Your task to perform on an android device: Open settings on Google Maps Image 0: 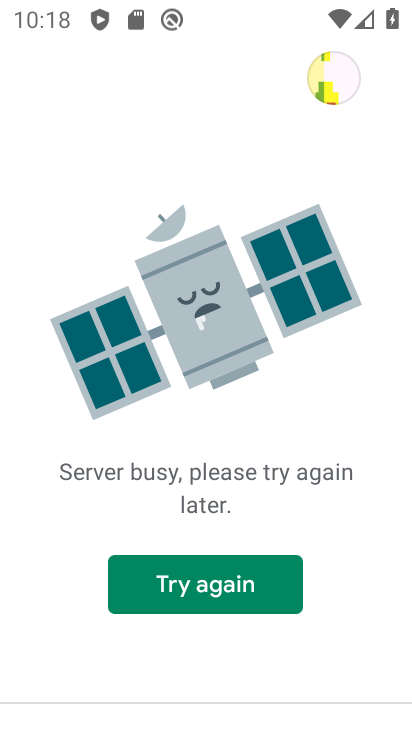
Step 0: press home button
Your task to perform on an android device: Open settings on Google Maps Image 1: 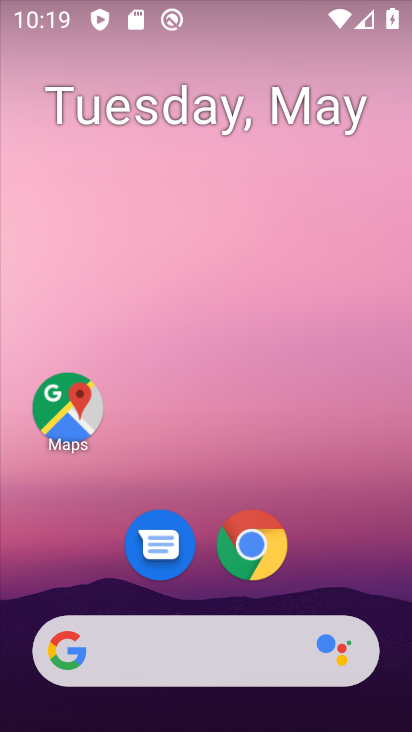
Step 1: drag from (241, 553) to (96, 707)
Your task to perform on an android device: Open settings on Google Maps Image 2: 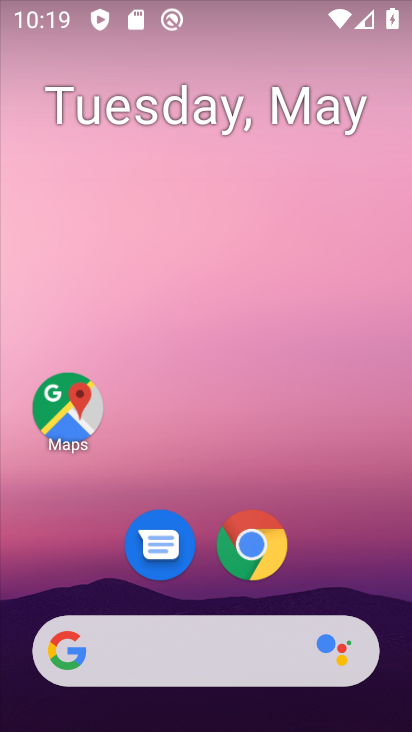
Step 2: drag from (185, 627) to (255, 84)
Your task to perform on an android device: Open settings on Google Maps Image 3: 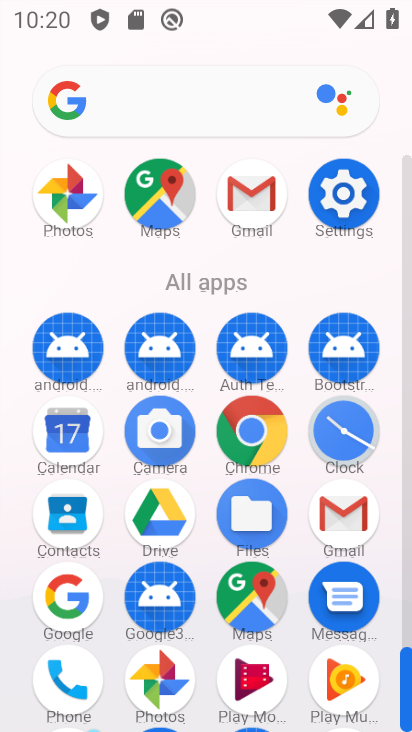
Step 3: click (237, 589)
Your task to perform on an android device: Open settings on Google Maps Image 4: 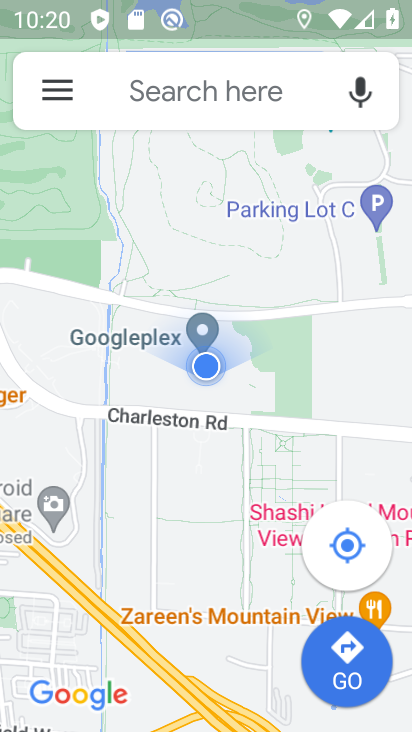
Step 4: click (54, 91)
Your task to perform on an android device: Open settings on Google Maps Image 5: 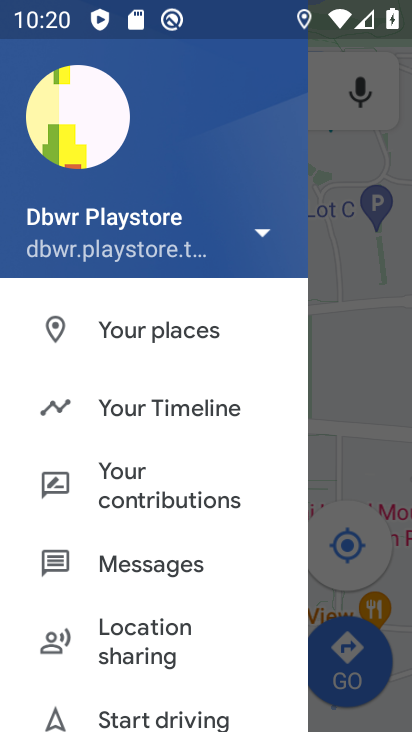
Step 5: drag from (127, 579) to (220, 63)
Your task to perform on an android device: Open settings on Google Maps Image 6: 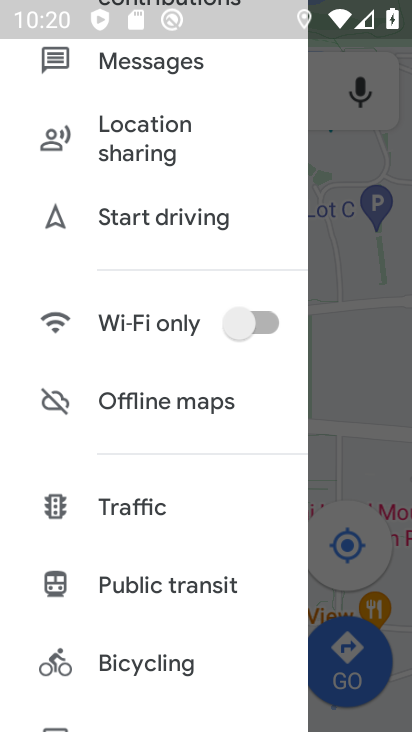
Step 6: drag from (144, 578) to (208, 187)
Your task to perform on an android device: Open settings on Google Maps Image 7: 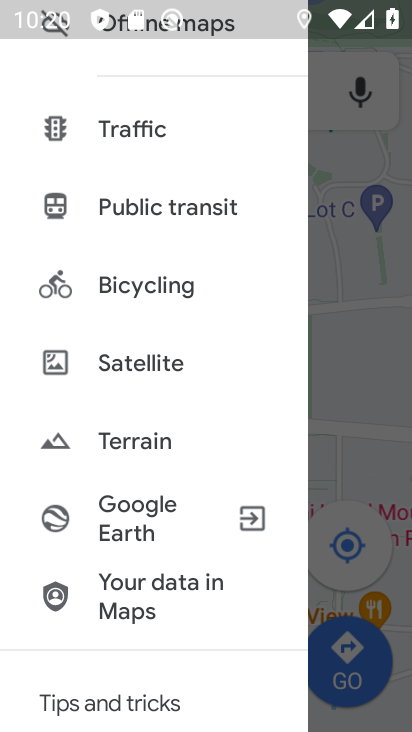
Step 7: drag from (148, 574) to (200, 119)
Your task to perform on an android device: Open settings on Google Maps Image 8: 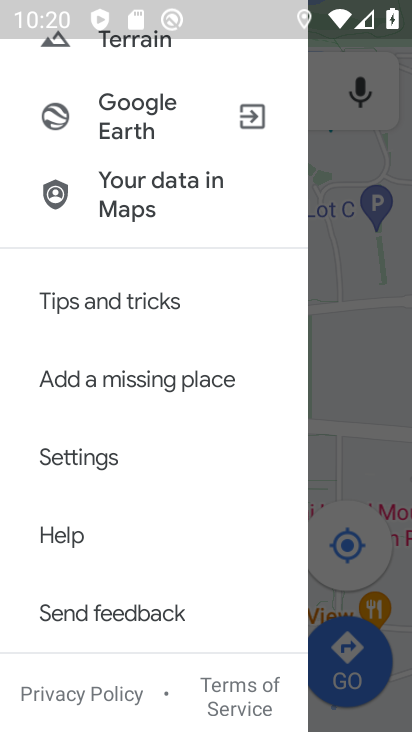
Step 8: click (108, 448)
Your task to perform on an android device: Open settings on Google Maps Image 9: 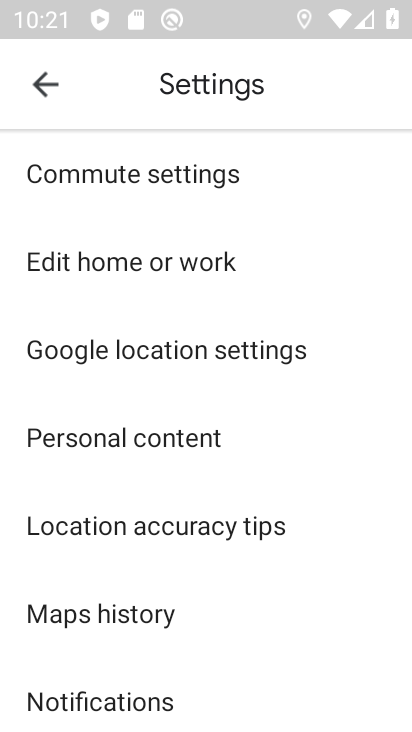
Step 9: task complete